Your task to perform on an android device: Add "jbl flip 4" to the cart on newegg.com, then select checkout. Image 0: 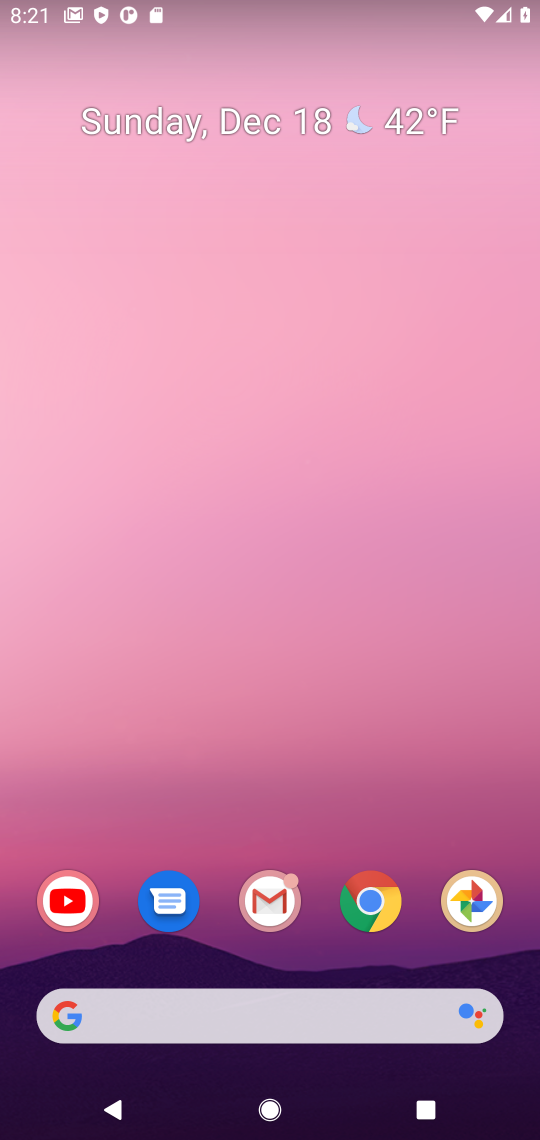
Step 0: click (369, 918)
Your task to perform on an android device: Add "jbl flip 4" to the cart on newegg.com, then select checkout. Image 1: 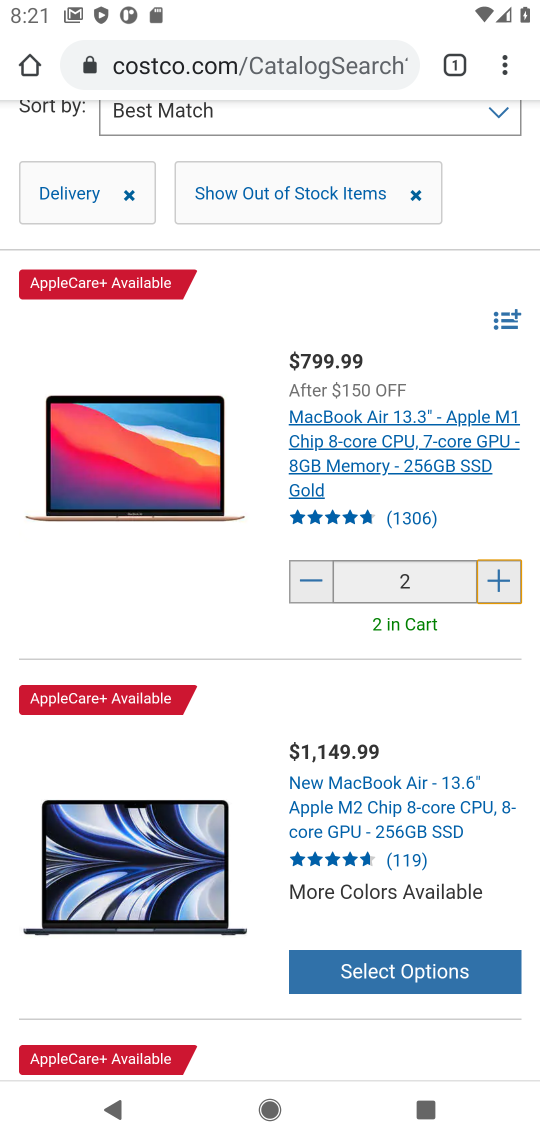
Step 1: click (281, 61)
Your task to perform on an android device: Add "jbl flip 4" to the cart on newegg.com, then select checkout. Image 2: 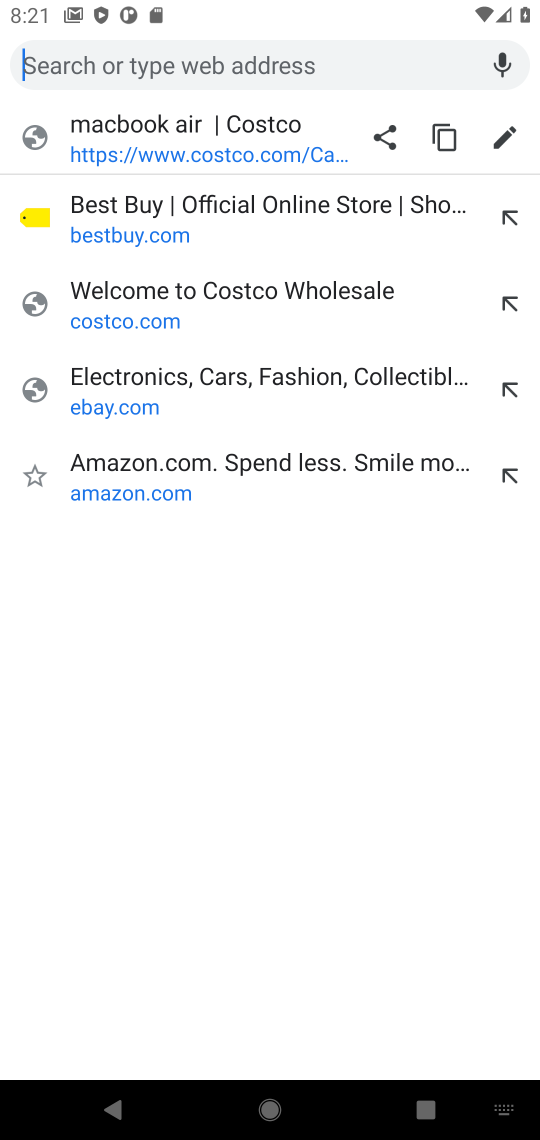
Step 2: type "negg"
Your task to perform on an android device: Add "jbl flip 4" to the cart on newegg.com, then select checkout. Image 3: 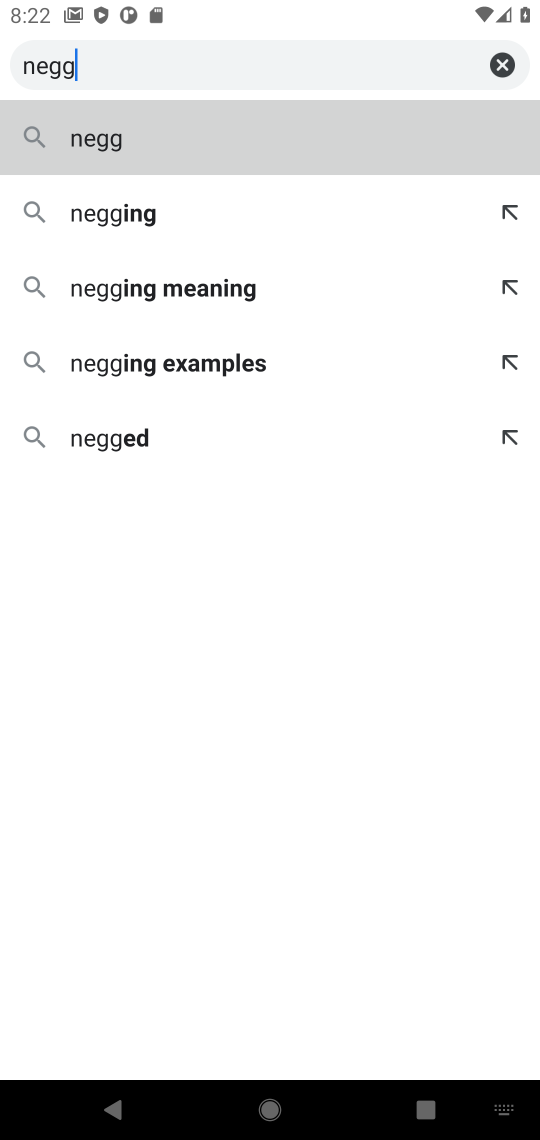
Step 3: click (114, 153)
Your task to perform on an android device: Add "jbl flip 4" to the cart on newegg.com, then select checkout. Image 4: 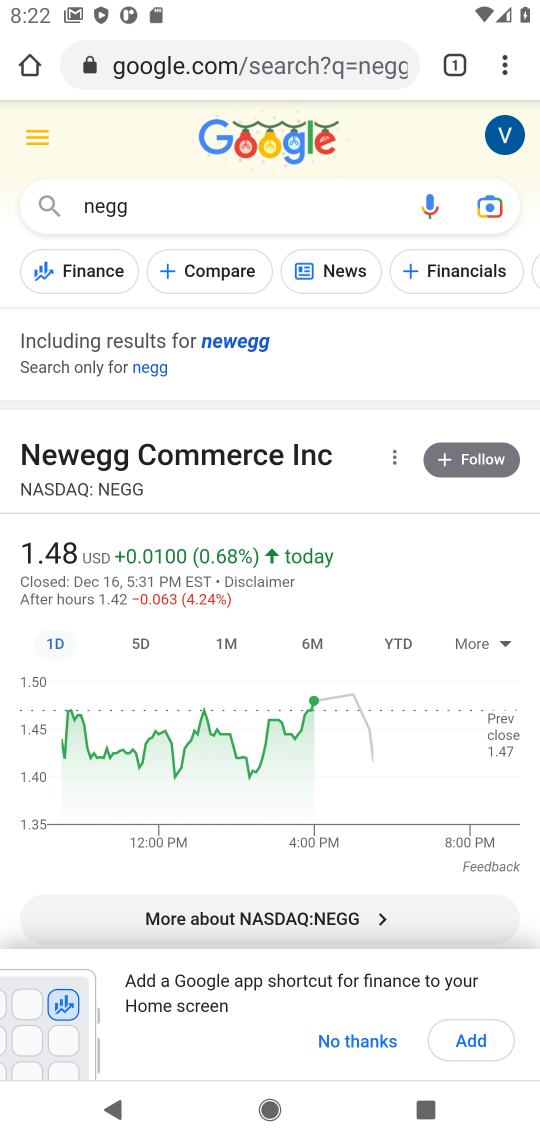
Step 4: click (151, 470)
Your task to perform on an android device: Add "jbl flip 4" to the cart on newegg.com, then select checkout. Image 5: 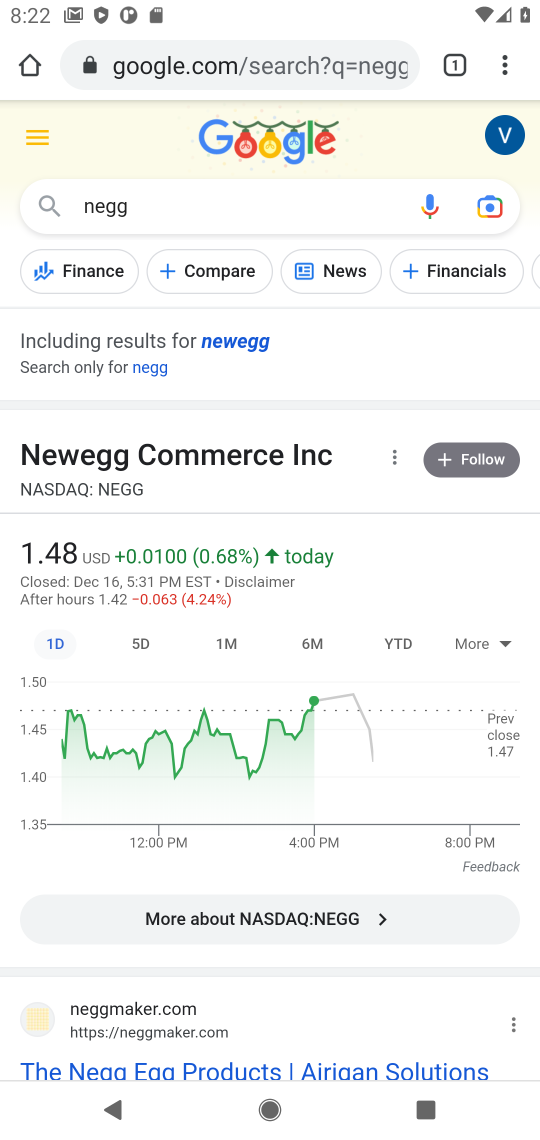
Step 5: task complete